Your task to perform on an android device: Open wifi settings Image 0: 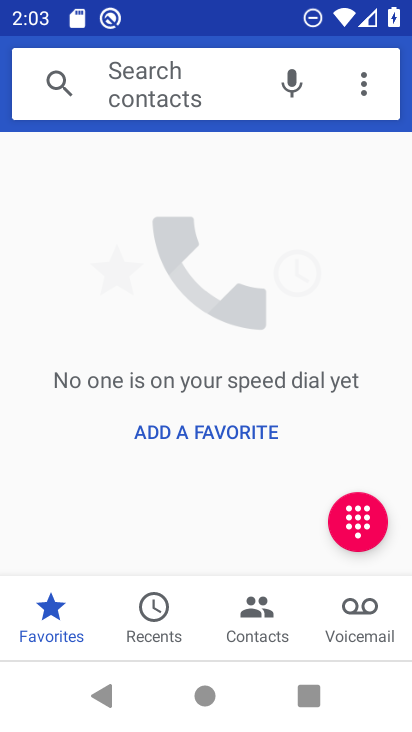
Step 0: press home button
Your task to perform on an android device: Open wifi settings Image 1: 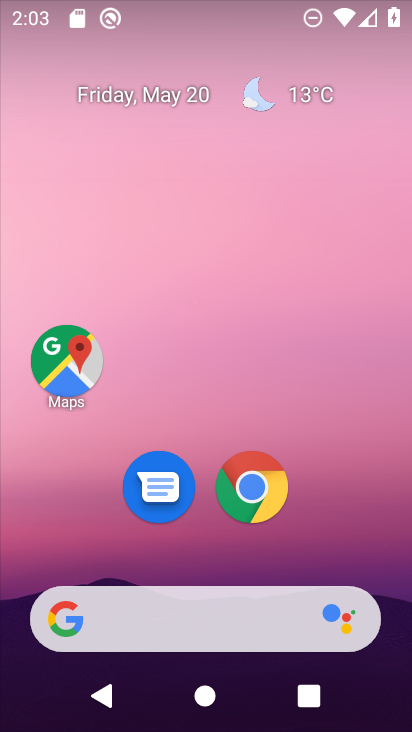
Step 1: click (219, 506)
Your task to perform on an android device: Open wifi settings Image 2: 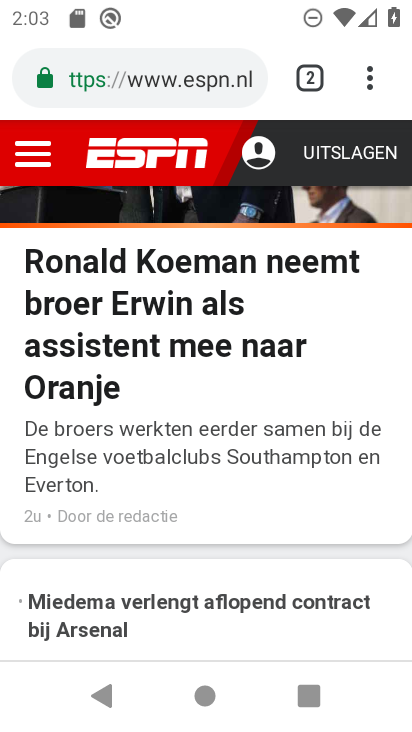
Step 2: drag from (147, 10) to (174, 556)
Your task to perform on an android device: Open wifi settings Image 3: 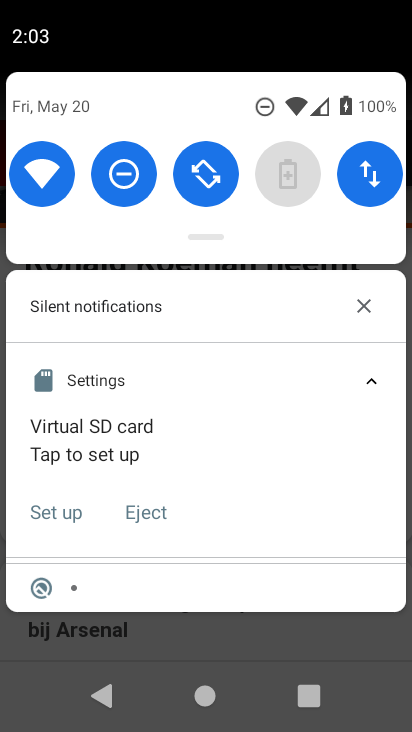
Step 3: click (47, 177)
Your task to perform on an android device: Open wifi settings Image 4: 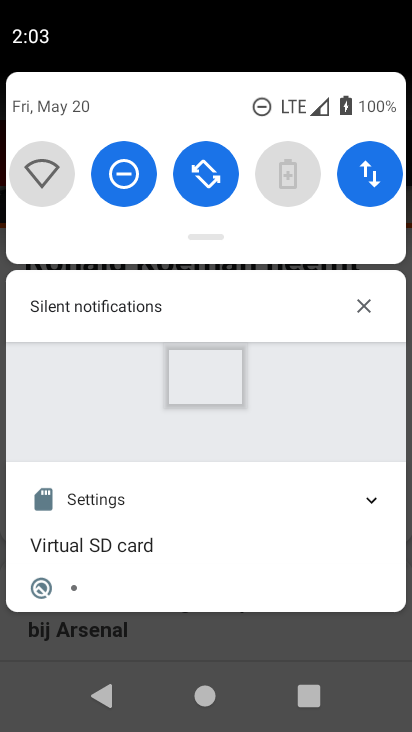
Step 4: task complete